Your task to perform on an android device: Is it going to rain tomorrow? Image 0: 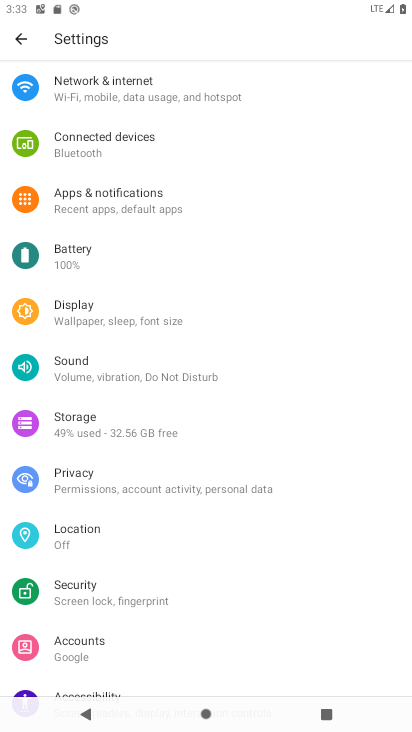
Step 0: press home button
Your task to perform on an android device: Is it going to rain tomorrow? Image 1: 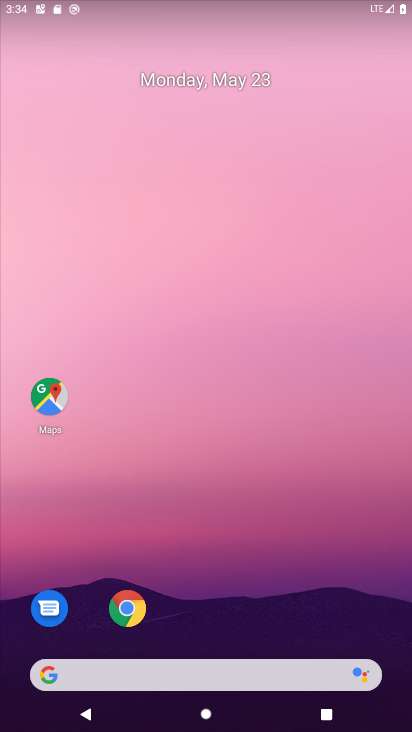
Step 1: click (136, 609)
Your task to perform on an android device: Is it going to rain tomorrow? Image 2: 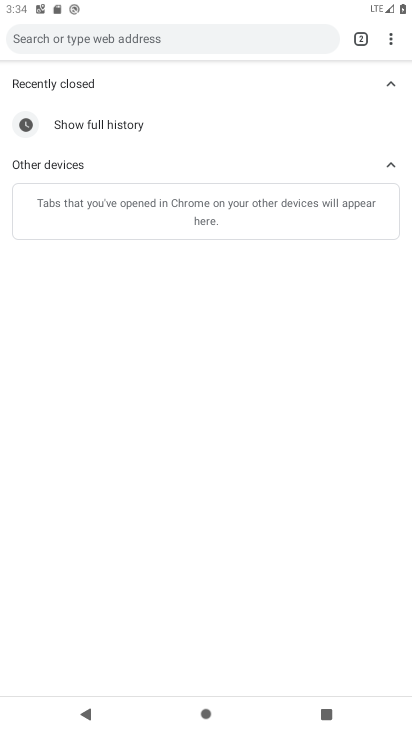
Step 2: click (57, 36)
Your task to perform on an android device: Is it going to rain tomorrow? Image 3: 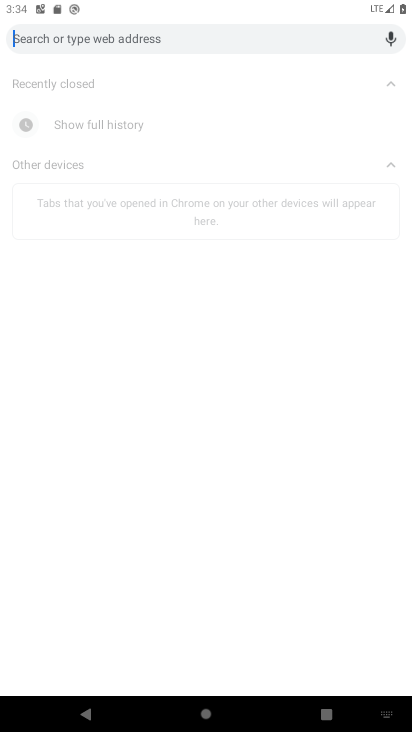
Step 3: type "Is it going to rain tomorrow?"
Your task to perform on an android device: Is it going to rain tomorrow? Image 4: 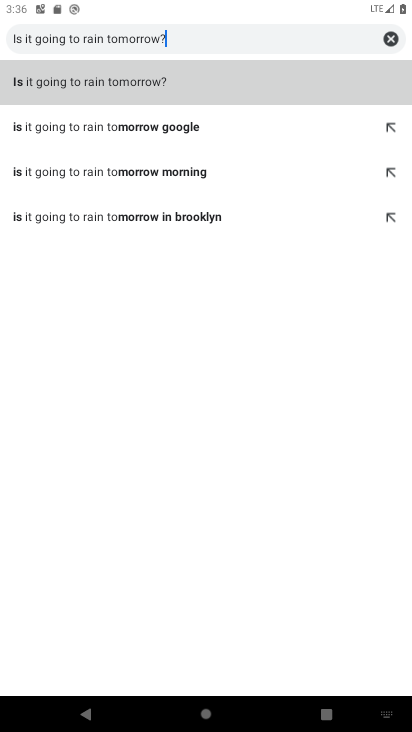
Step 4: click (116, 82)
Your task to perform on an android device: Is it going to rain tomorrow? Image 5: 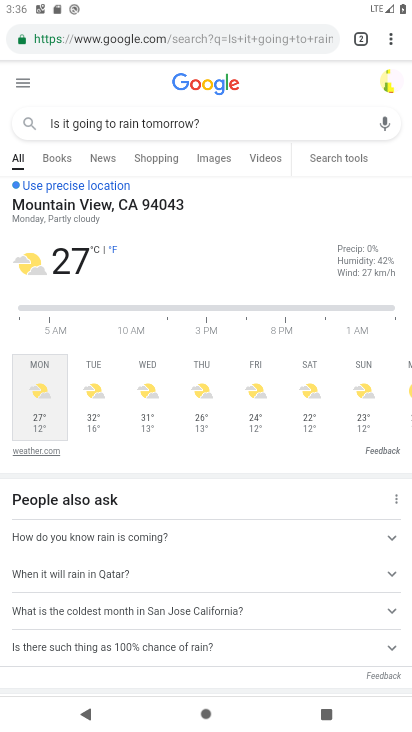
Step 5: task complete